Your task to perform on an android device: Show me popular games on the Play Store Image 0: 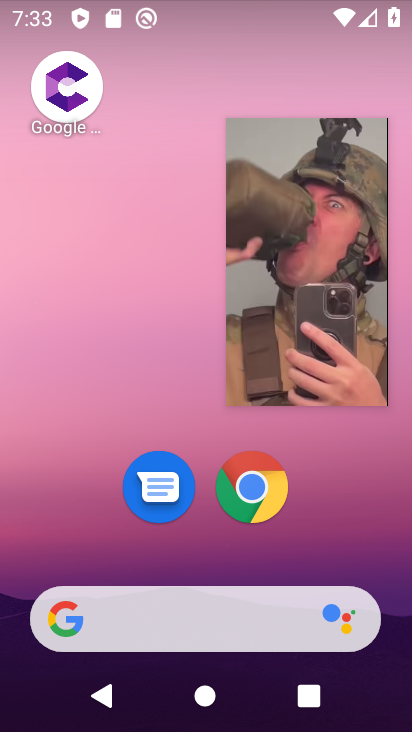
Step 0: drag from (342, 536) to (357, 110)
Your task to perform on an android device: Show me popular games on the Play Store Image 1: 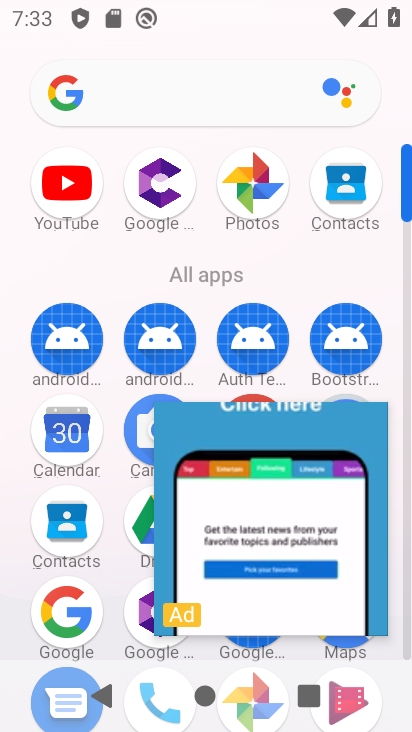
Step 1: drag from (385, 378) to (391, 171)
Your task to perform on an android device: Show me popular games on the Play Store Image 2: 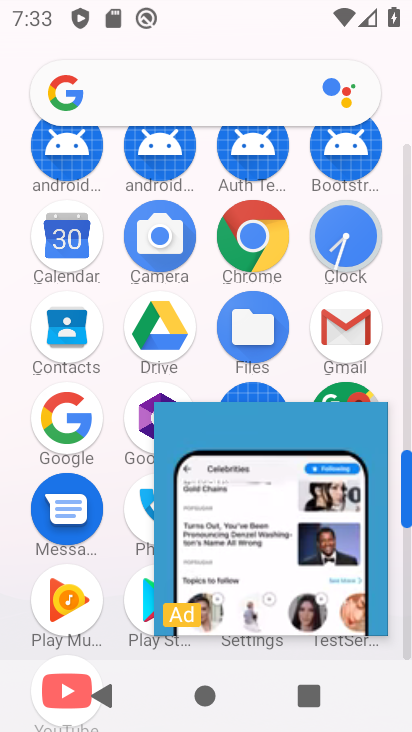
Step 2: click (139, 599)
Your task to perform on an android device: Show me popular games on the Play Store Image 3: 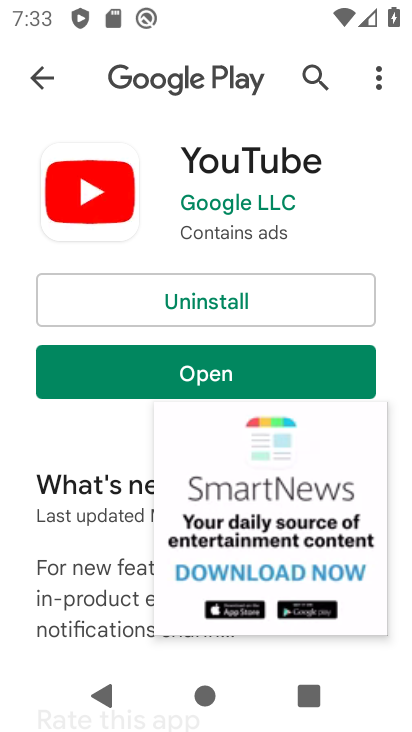
Step 3: click (29, 76)
Your task to perform on an android device: Show me popular games on the Play Store Image 4: 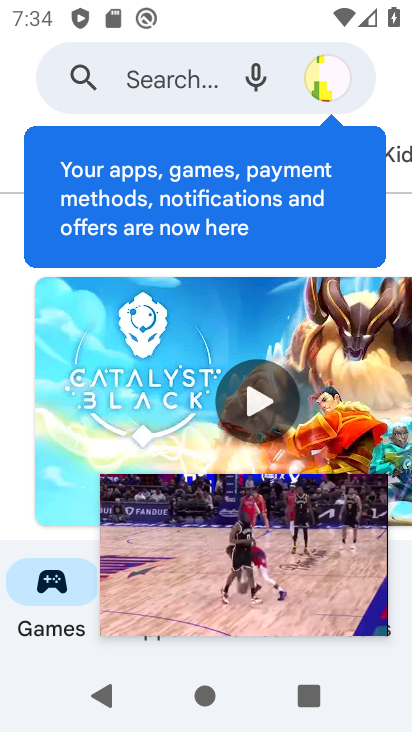
Step 4: drag from (117, 413) to (119, 188)
Your task to perform on an android device: Show me popular games on the Play Store Image 5: 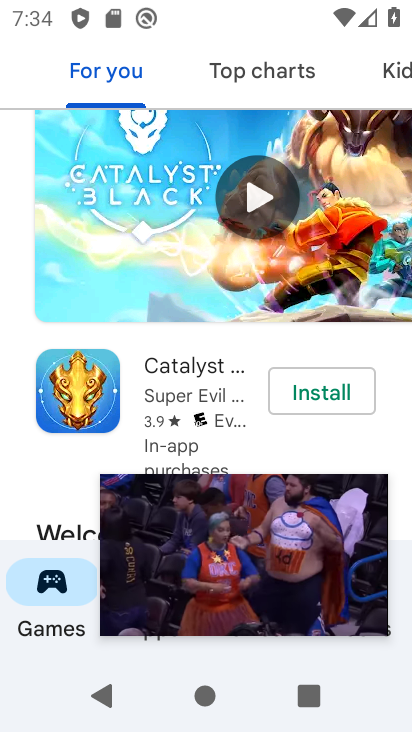
Step 5: drag from (68, 481) to (74, 212)
Your task to perform on an android device: Show me popular games on the Play Store Image 6: 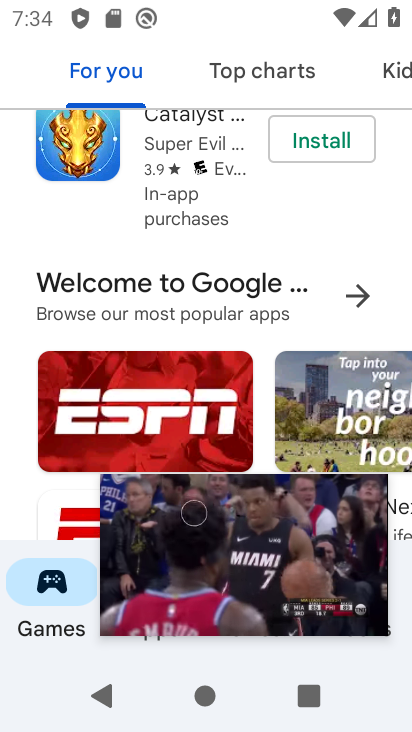
Step 6: click (50, 620)
Your task to perform on an android device: Show me popular games on the Play Store Image 7: 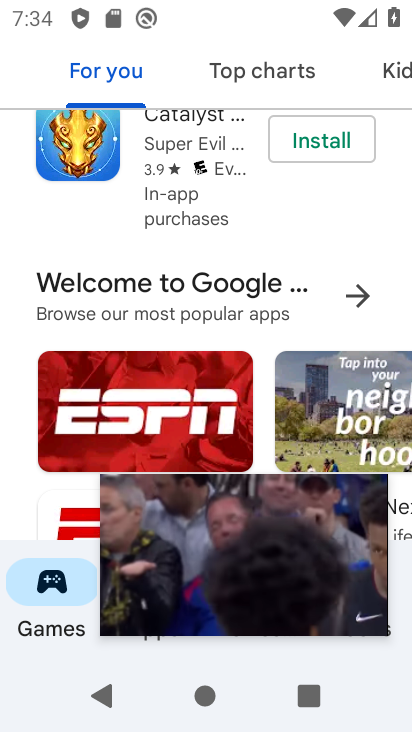
Step 7: task complete